Your task to perform on an android device: open a new tab in the chrome app Image 0: 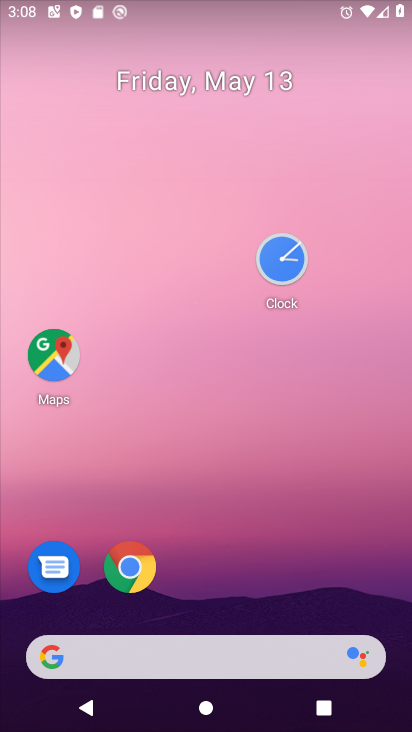
Step 0: click (126, 576)
Your task to perform on an android device: open a new tab in the chrome app Image 1: 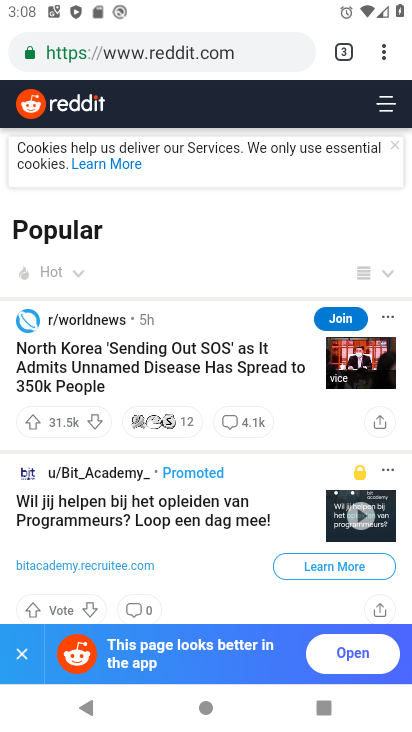
Step 1: click (337, 59)
Your task to perform on an android device: open a new tab in the chrome app Image 2: 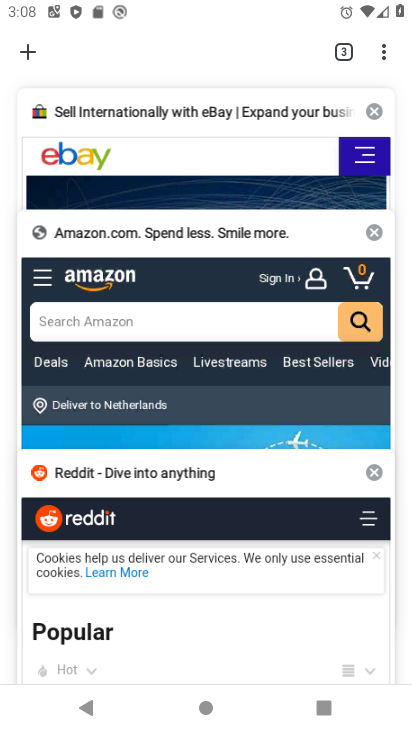
Step 2: click (23, 52)
Your task to perform on an android device: open a new tab in the chrome app Image 3: 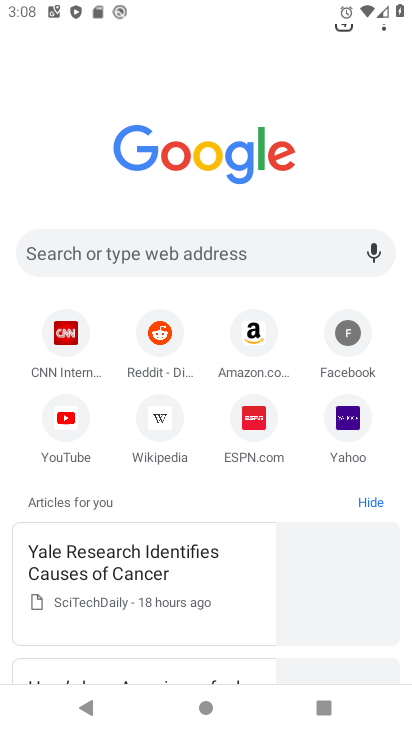
Step 3: task complete